Your task to perform on an android device: Open Yahoo.com Image 0: 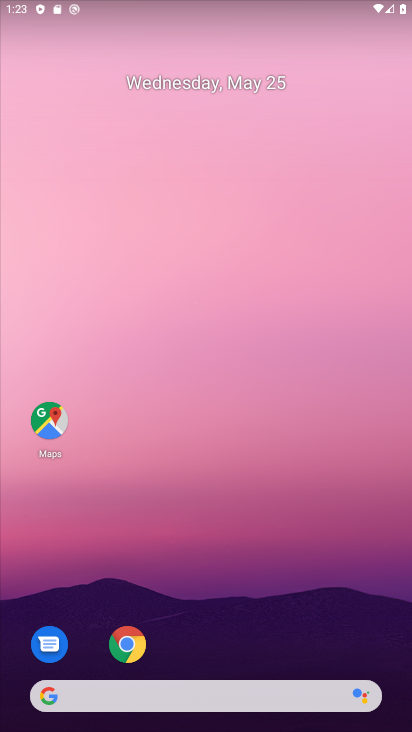
Step 0: click (133, 646)
Your task to perform on an android device: Open Yahoo.com Image 1: 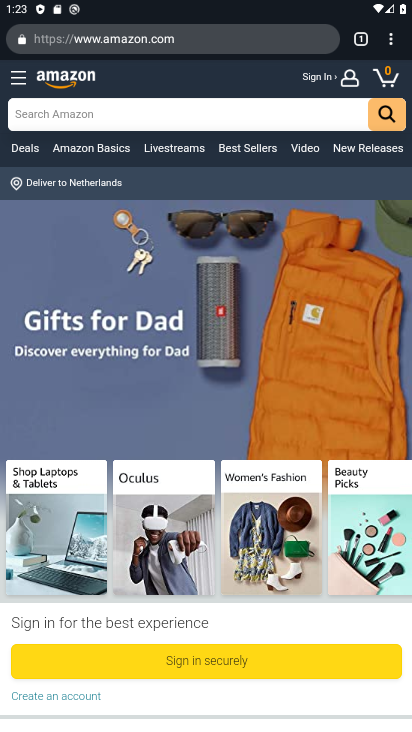
Step 1: press back button
Your task to perform on an android device: Open Yahoo.com Image 2: 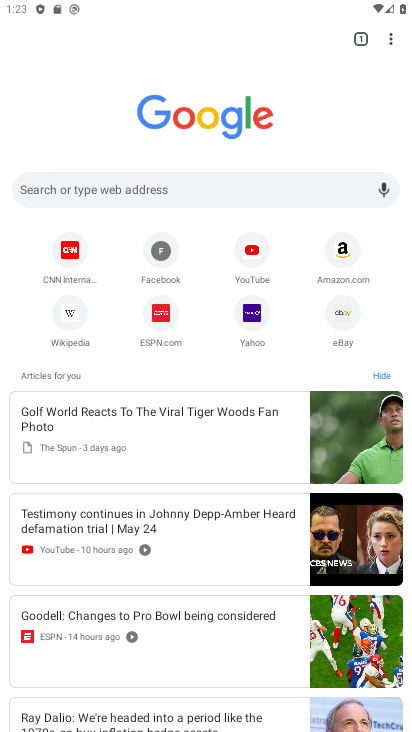
Step 2: click (249, 324)
Your task to perform on an android device: Open Yahoo.com Image 3: 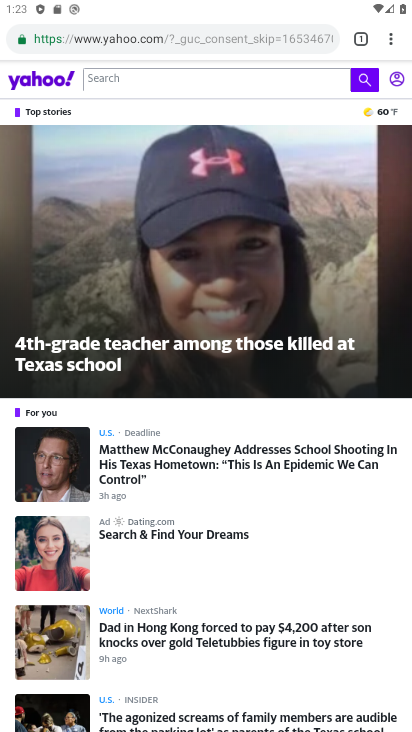
Step 3: task complete